Your task to perform on an android device: Is it going to rain today? Image 0: 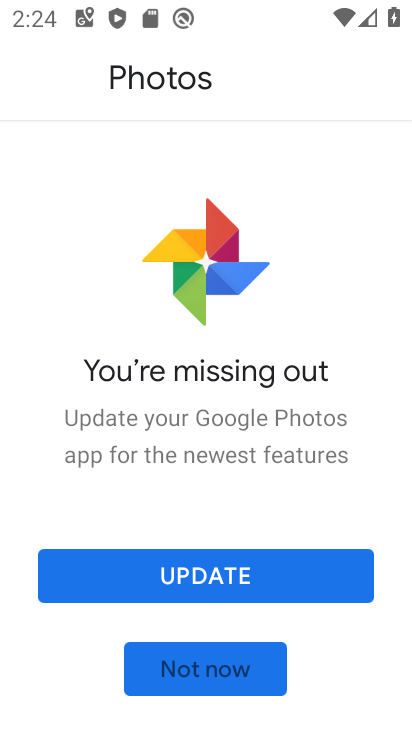
Step 0: press home button
Your task to perform on an android device: Is it going to rain today? Image 1: 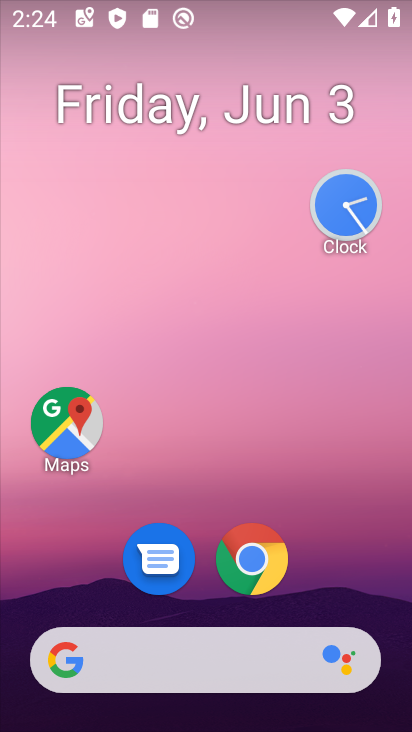
Step 1: drag from (4, 292) to (328, 368)
Your task to perform on an android device: Is it going to rain today? Image 2: 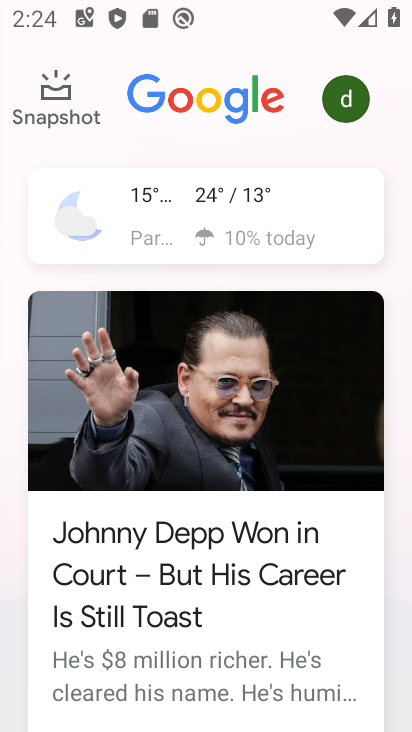
Step 2: click (267, 235)
Your task to perform on an android device: Is it going to rain today? Image 3: 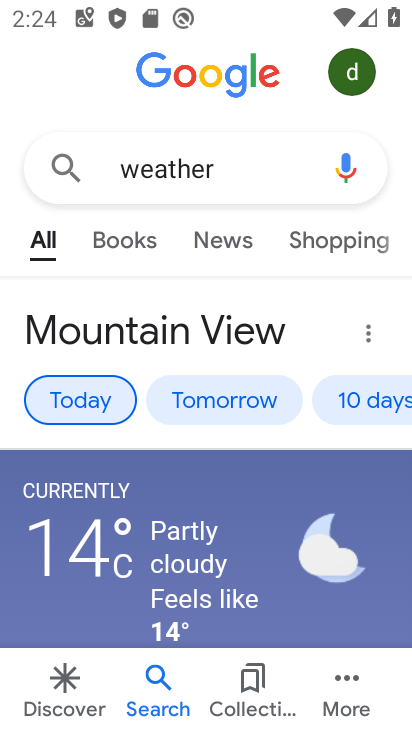
Step 3: task complete